Your task to perform on an android device: turn on location history Image 0: 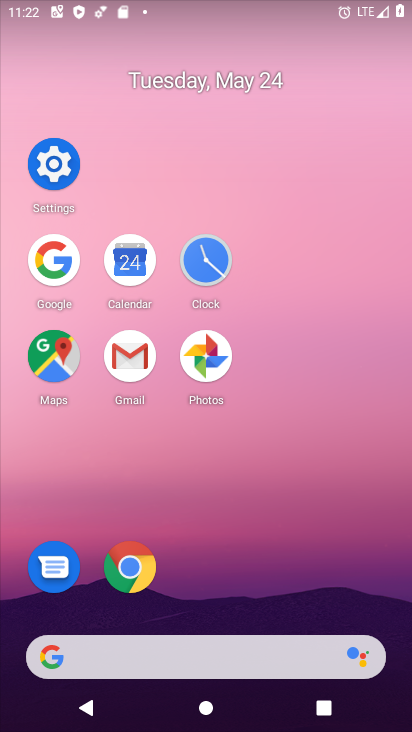
Step 0: click (49, 171)
Your task to perform on an android device: turn on location history Image 1: 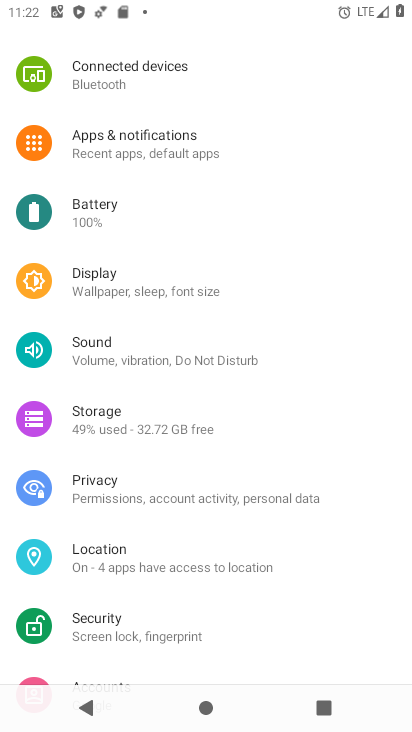
Step 1: click (155, 557)
Your task to perform on an android device: turn on location history Image 2: 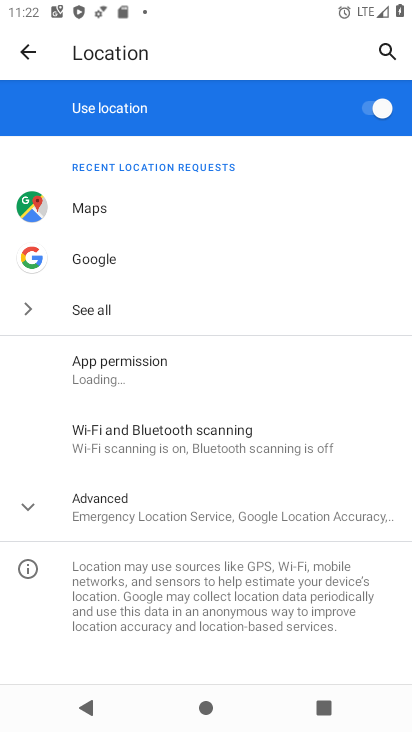
Step 2: click (157, 498)
Your task to perform on an android device: turn on location history Image 3: 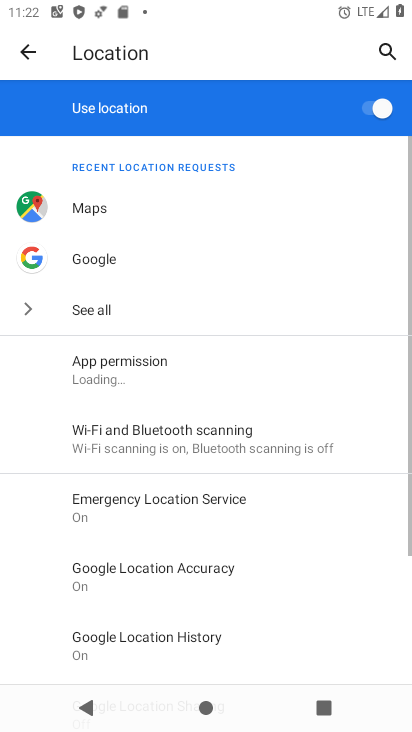
Step 3: drag from (157, 498) to (229, 175)
Your task to perform on an android device: turn on location history Image 4: 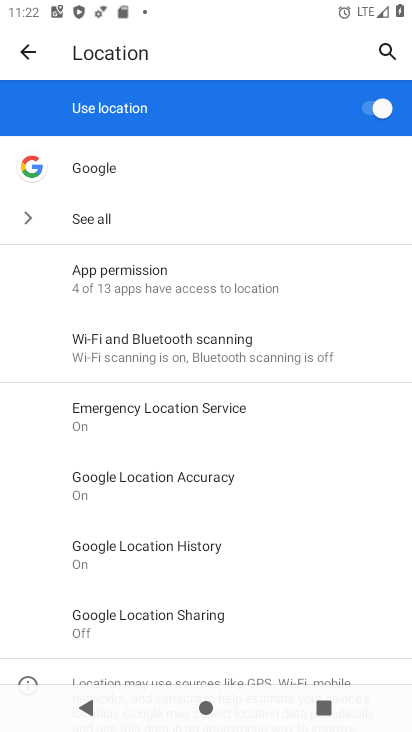
Step 4: click (145, 546)
Your task to perform on an android device: turn on location history Image 5: 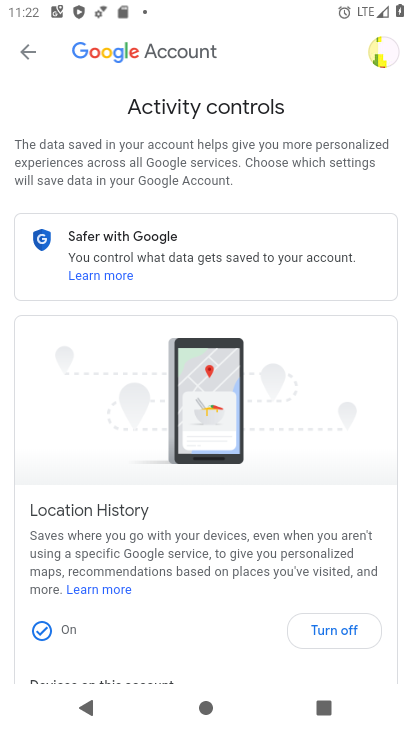
Step 5: task complete